Your task to perform on an android device: Open privacy settings Image 0: 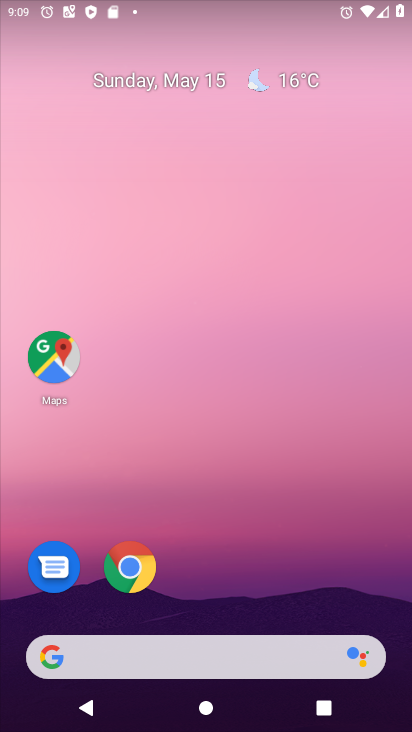
Step 0: drag from (204, 669) to (209, 149)
Your task to perform on an android device: Open privacy settings Image 1: 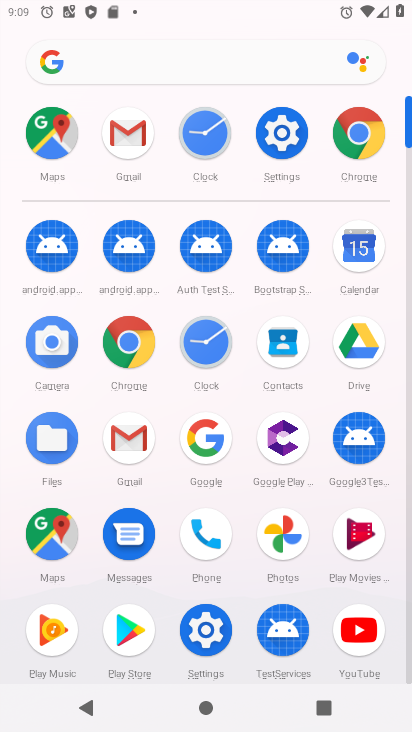
Step 1: click (208, 645)
Your task to perform on an android device: Open privacy settings Image 2: 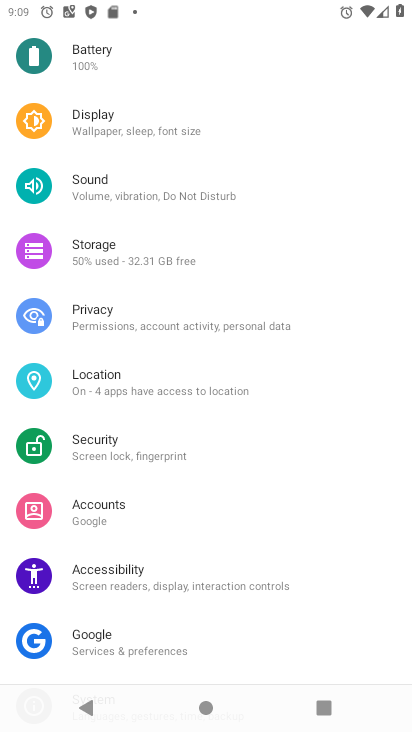
Step 2: click (115, 320)
Your task to perform on an android device: Open privacy settings Image 3: 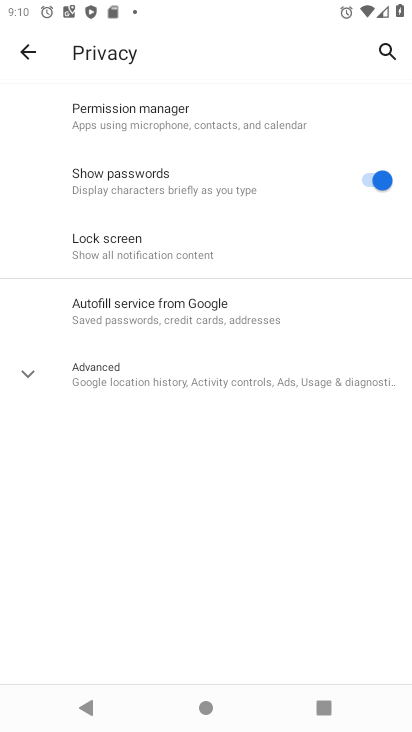
Step 3: task complete